Your task to perform on an android device: Search for Italian restaurants on Maps Image 0: 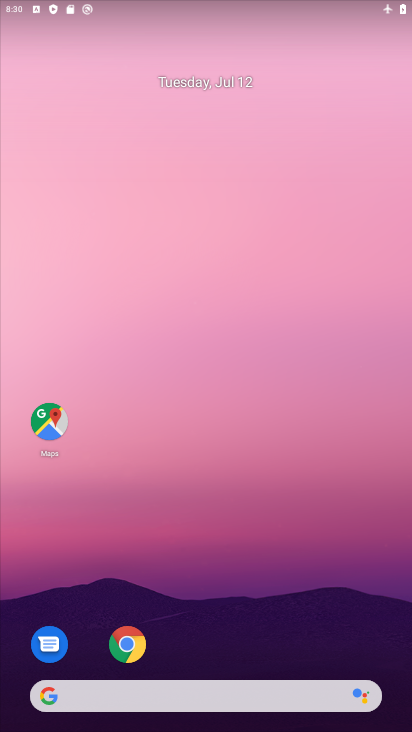
Step 0: click (47, 418)
Your task to perform on an android device: Search for Italian restaurants on Maps Image 1: 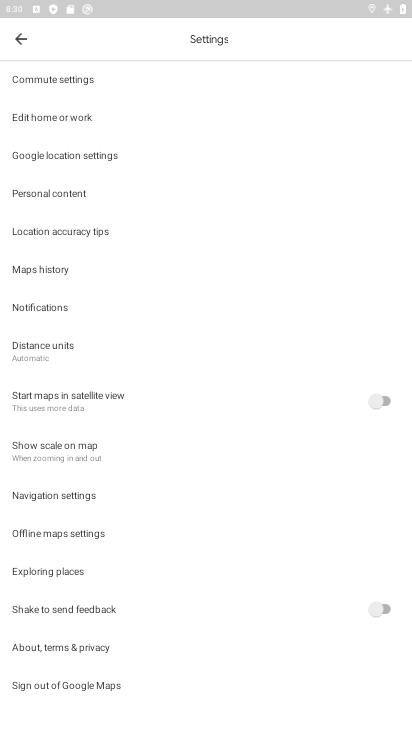
Step 1: press back button
Your task to perform on an android device: Search for Italian restaurants on Maps Image 2: 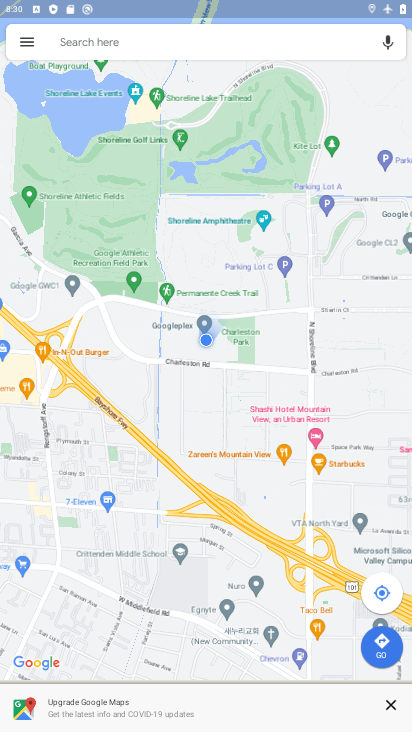
Step 2: click (114, 36)
Your task to perform on an android device: Search for Italian restaurants on Maps Image 3: 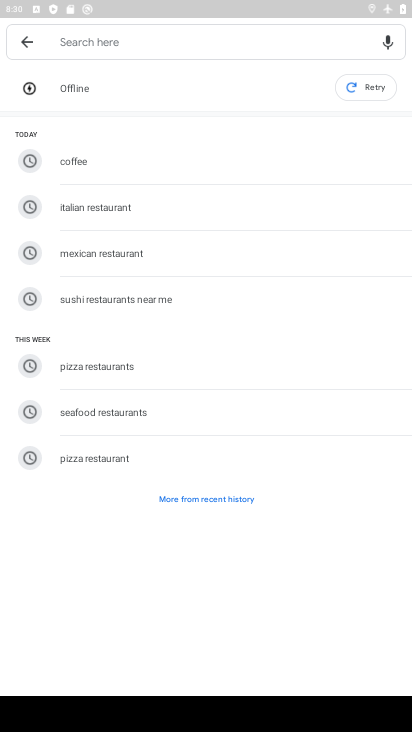
Step 3: type "italian restaurants"
Your task to perform on an android device: Search for Italian restaurants on Maps Image 4: 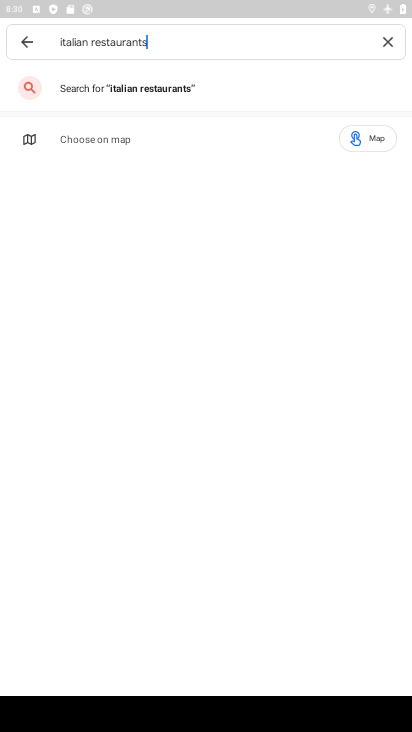
Step 4: click (153, 91)
Your task to perform on an android device: Search for Italian restaurants on Maps Image 5: 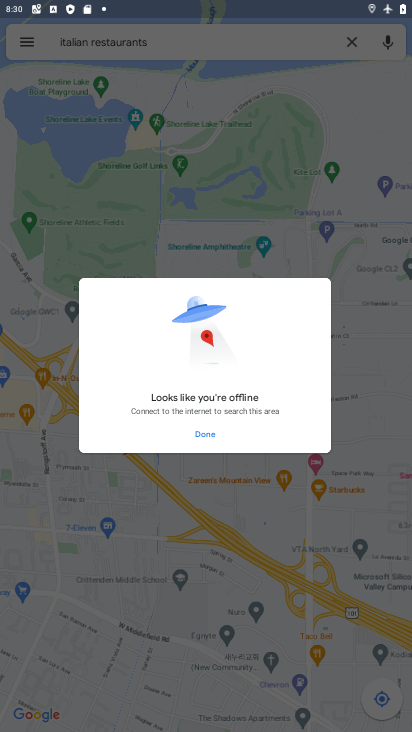
Step 5: click (198, 438)
Your task to perform on an android device: Search for Italian restaurants on Maps Image 6: 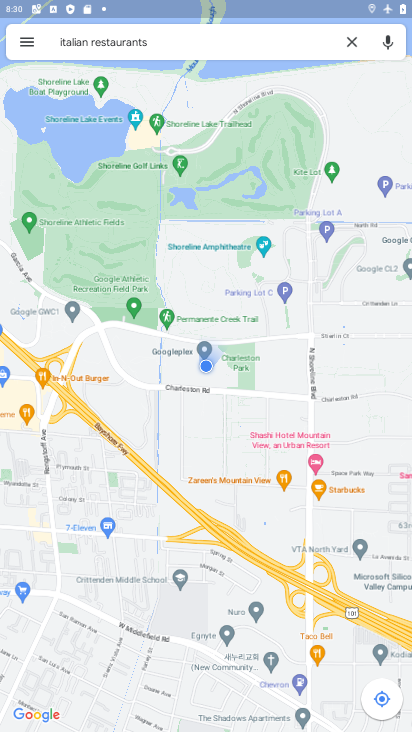
Step 6: task complete